Your task to perform on an android device: Open Chrome and go to the settings page Image 0: 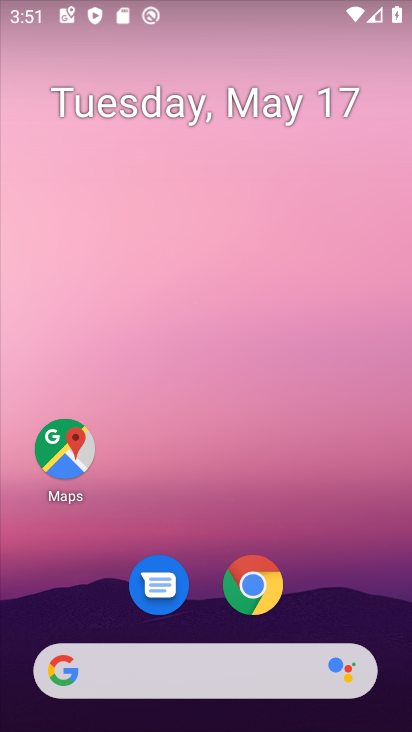
Step 0: click (264, 590)
Your task to perform on an android device: Open Chrome and go to the settings page Image 1: 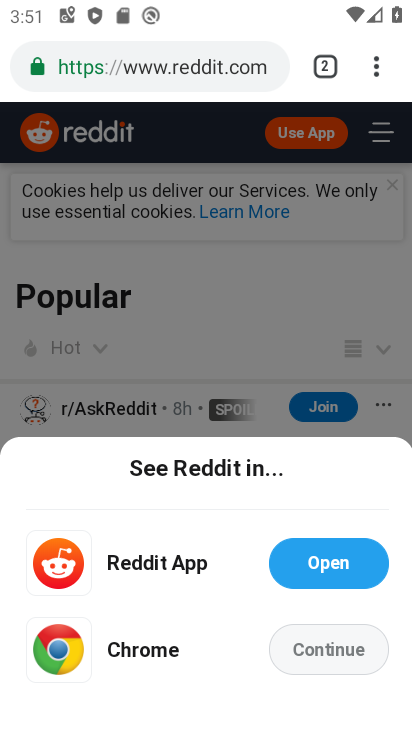
Step 1: click (375, 58)
Your task to perform on an android device: Open Chrome and go to the settings page Image 2: 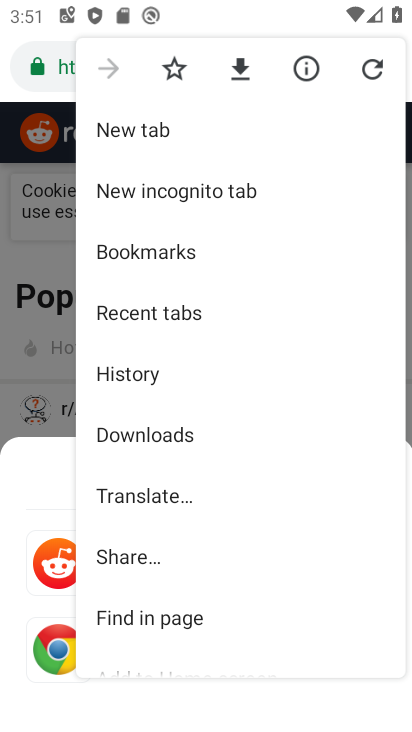
Step 2: drag from (214, 538) to (234, 221)
Your task to perform on an android device: Open Chrome and go to the settings page Image 3: 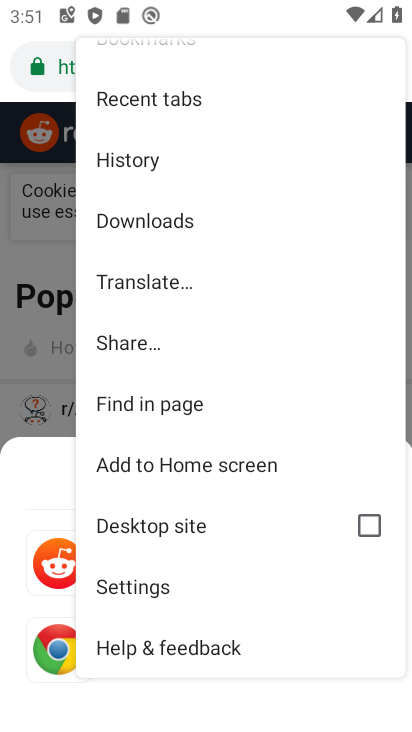
Step 3: click (170, 580)
Your task to perform on an android device: Open Chrome and go to the settings page Image 4: 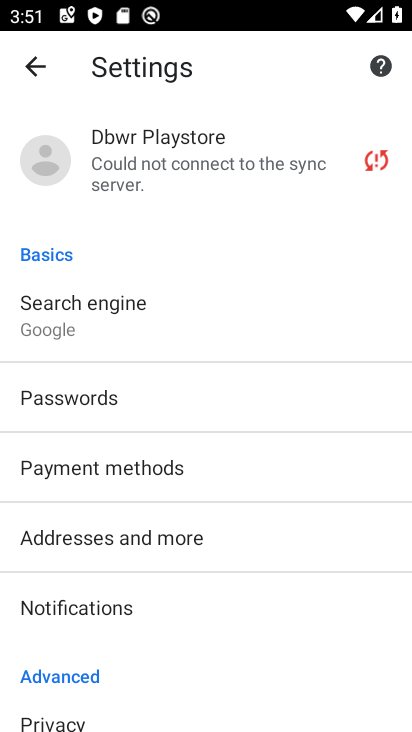
Step 4: task complete